Your task to perform on an android device: manage bookmarks in the chrome app Image 0: 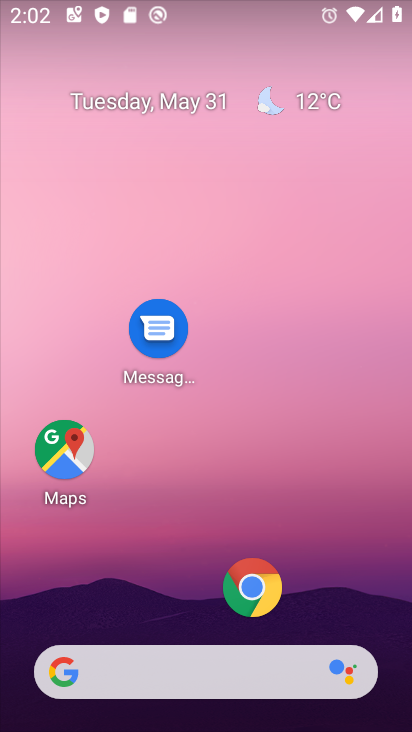
Step 0: click (312, 170)
Your task to perform on an android device: manage bookmarks in the chrome app Image 1: 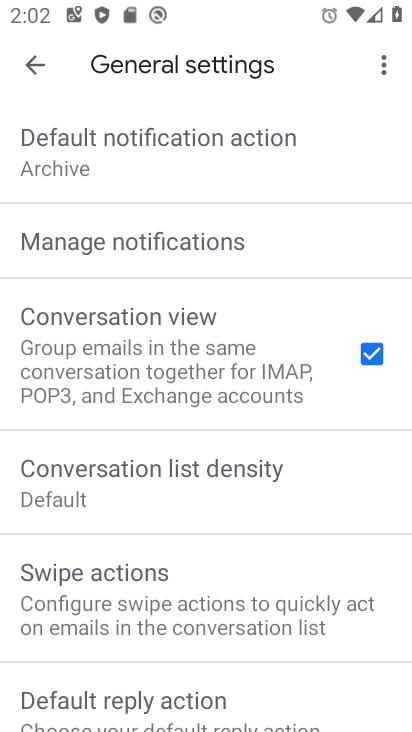
Step 1: press home button
Your task to perform on an android device: manage bookmarks in the chrome app Image 2: 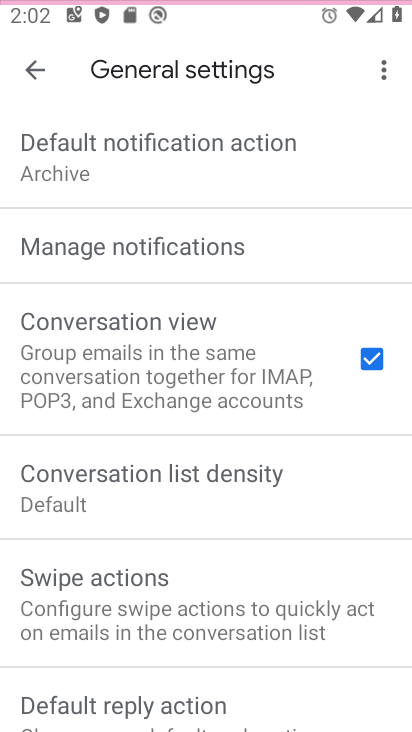
Step 2: drag from (234, 612) to (203, 0)
Your task to perform on an android device: manage bookmarks in the chrome app Image 3: 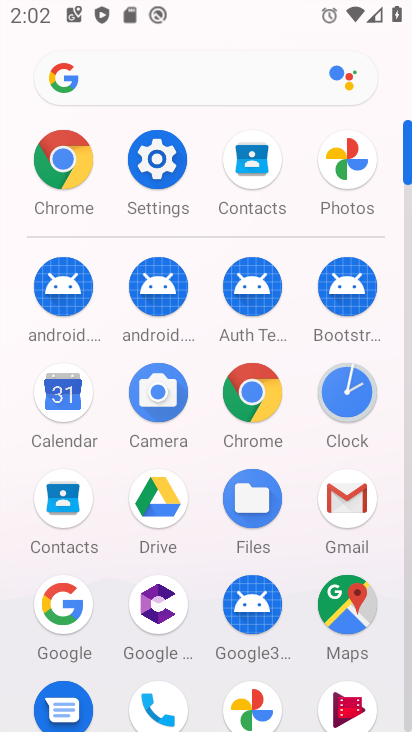
Step 3: click (246, 405)
Your task to perform on an android device: manage bookmarks in the chrome app Image 4: 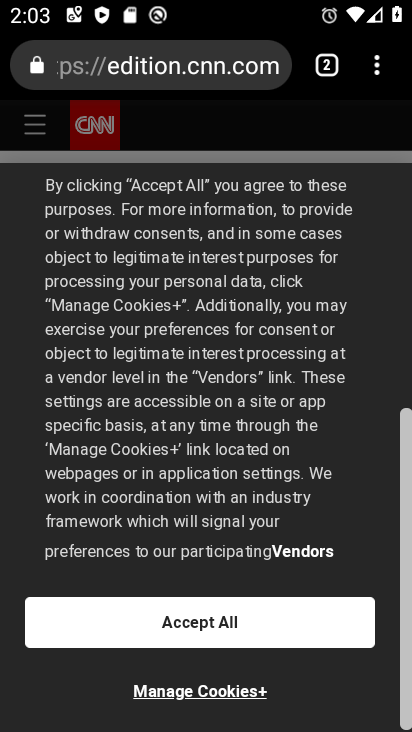
Step 4: drag from (185, 585) to (230, 278)
Your task to perform on an android device: manage bookmarks in the chrome app Image 5: 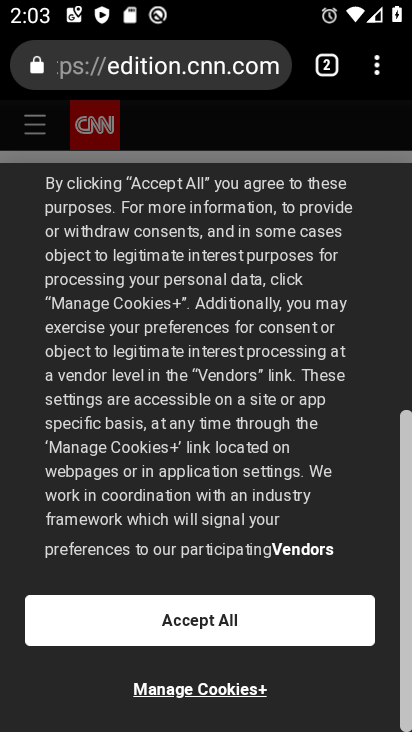
Step 5: drag from (277, 678) to (284, 354)
Your task to perform on an android device: manage bookmarks in the chrome app Image 6: 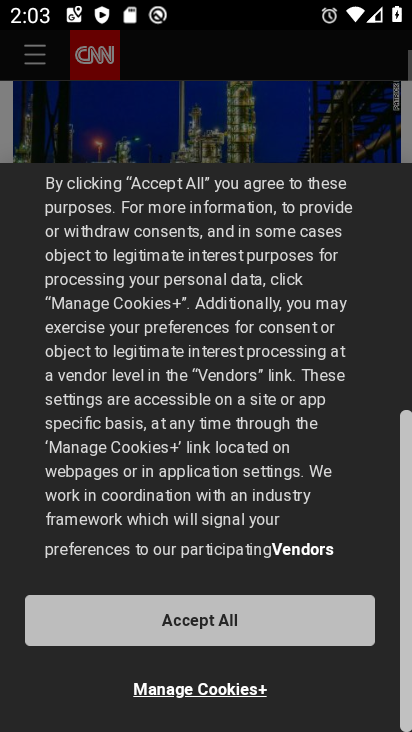
Step 6: drag from (324, 307) to (328, 689)
Your task to perform on an android device: manage bookmarks in the chrome app Image 7: 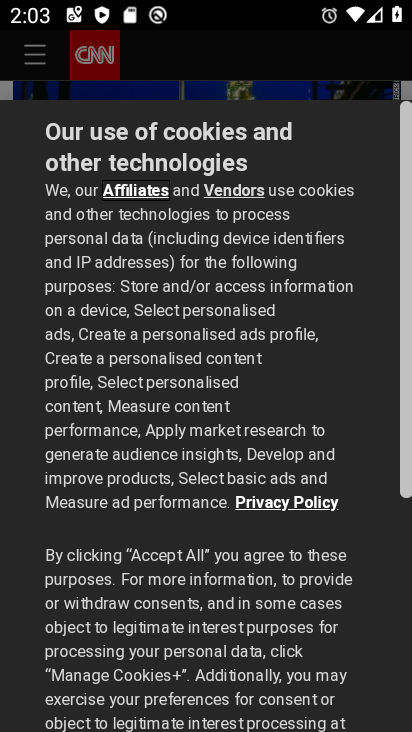
Step 7: drag from (325, 228) to (318, 666)
Your task to perform on an android device: manage bookmarks in the chrome app Image 8: 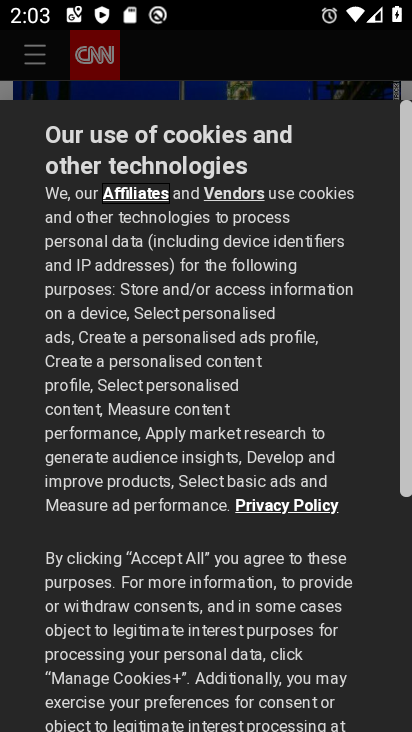
Step 8: press back button
Your task to perform on an android device: manage bookmarks in the chrome app Image 9: 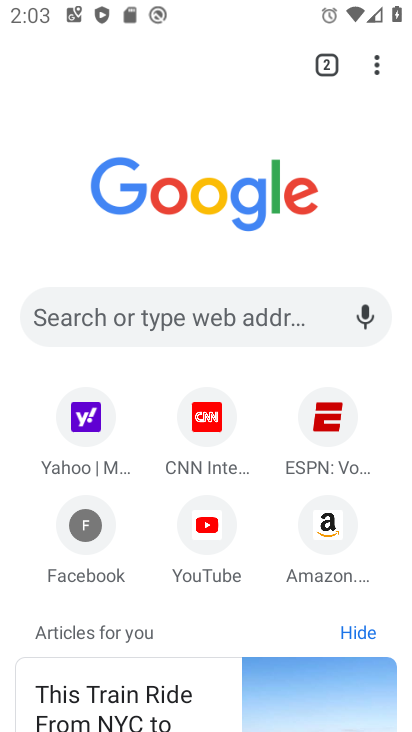
Step 9: click (375, 78)
Your task to perform on an android device: manage bookmarks in the chrome app Image 10: 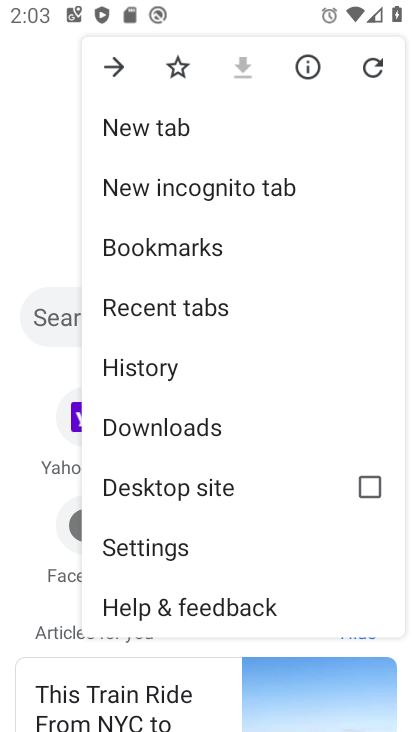
Step 10: drag from (215, 550) to (258, 198)
Your task to perform on an android device: manage bookmarks in the chrome app Image 11: 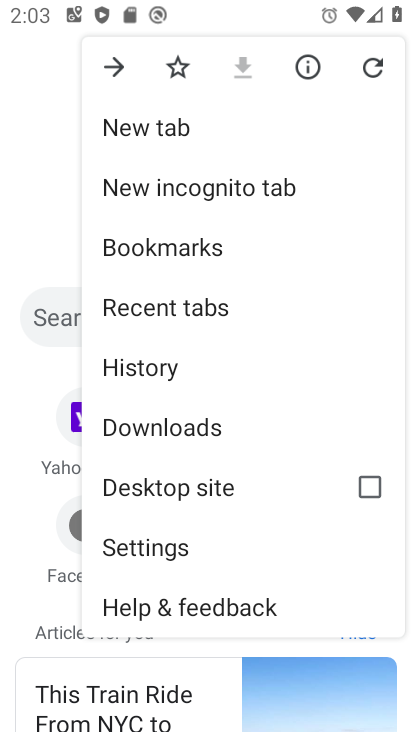
Step 11: click (174, 247)
Your task to perform on an android device: manage bookmarks in the chrome app Image 12: 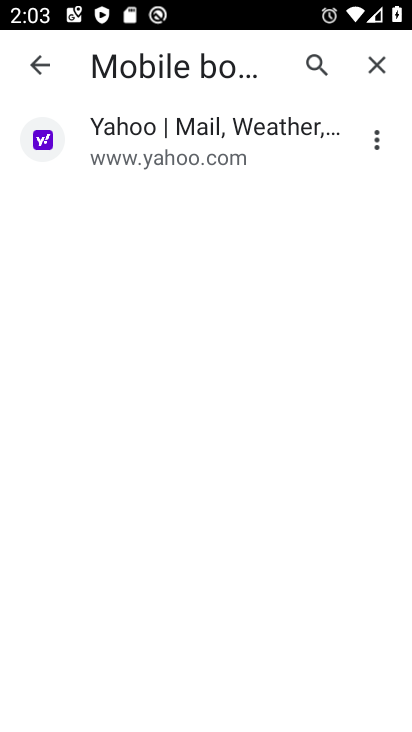
Step 12: task complete